Your task to perform on an android device: turn pop-ups off in chrome Image 0: 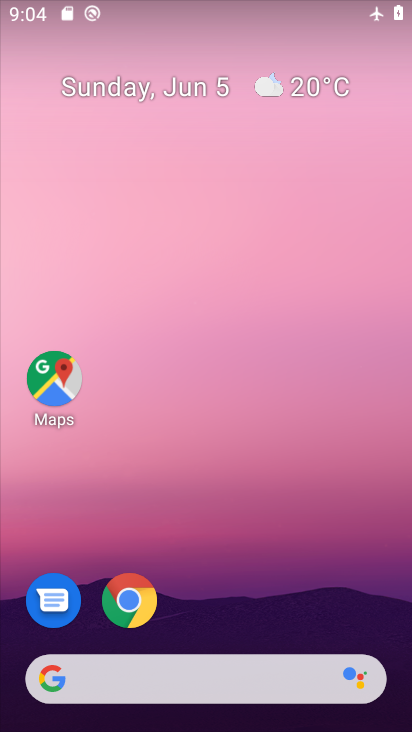
Step 0: click (132, 599)
Your task to perform on an android device: turn pop-ups off in chrome Image 1: 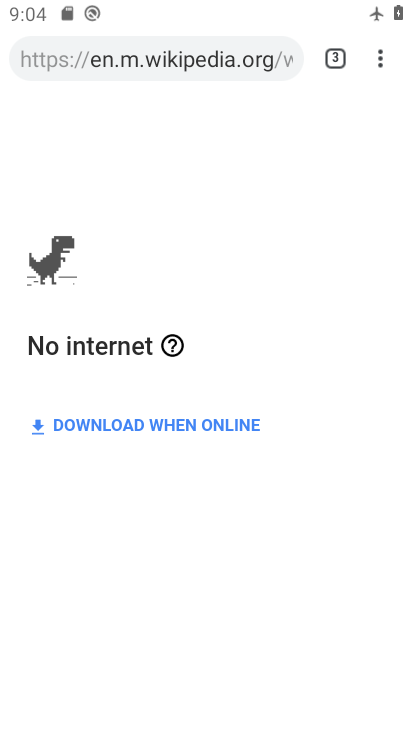
Step 1: click (380, 59)
Your task to perform on an android device: turn pop-ups off in chrome Image 2: 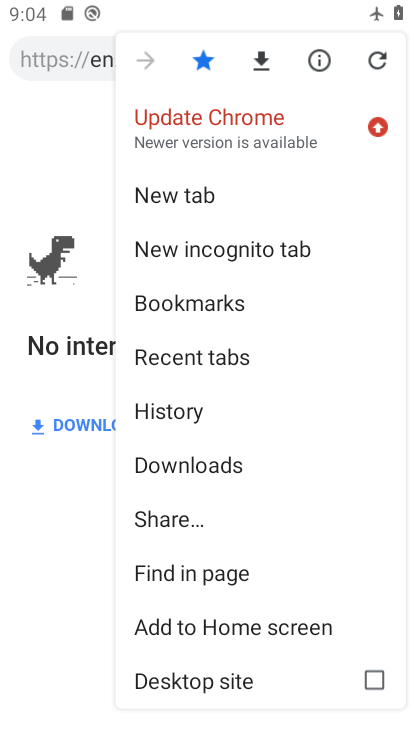
Step 2: drag from (276, 465) to (289, 155)
Your task to perform on an android device: turn pop-ups off in chrome Image 3: 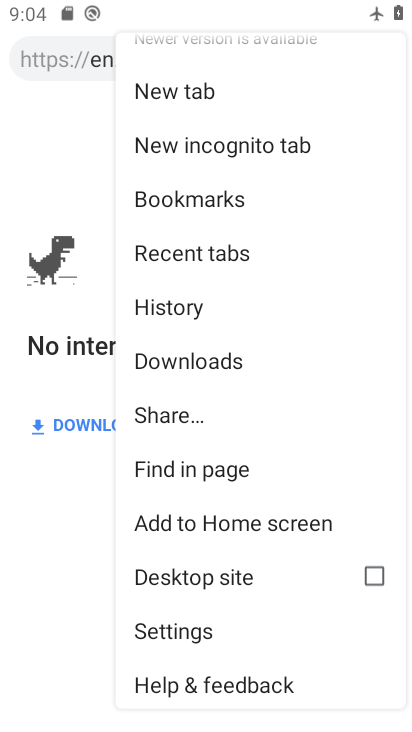
Step 3: click (232, 626)
Your task to perform on an android device: turn pop-ups off in chrome Image 4: 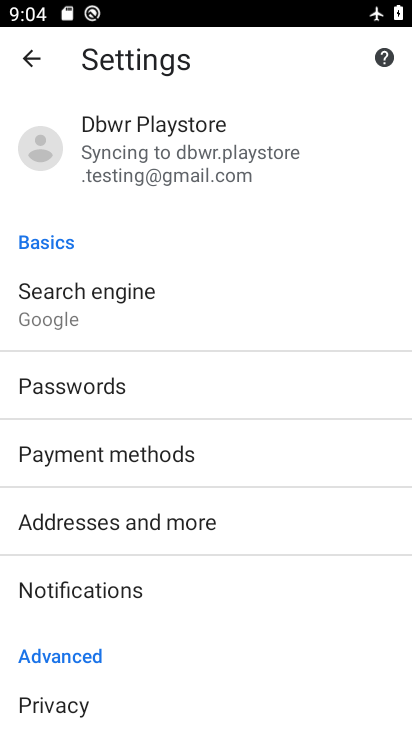
Step 4: drag from (285, 452) to (283, 132)
Your task to perform on an android device: turn pop-ups off in chrome Image 5: 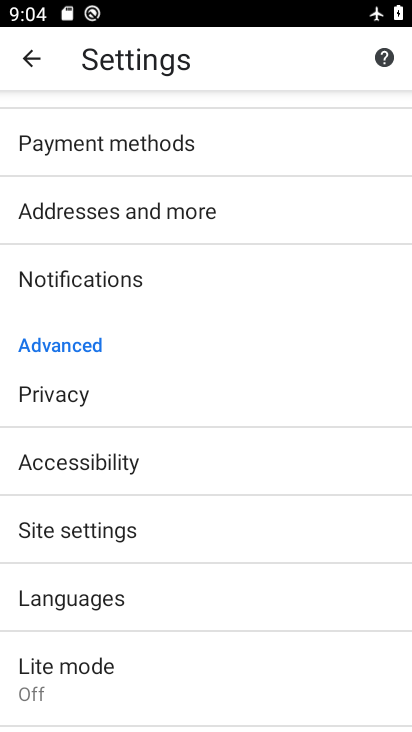
Step 5: click (195, 511)
Your task to perform on an android device: turn pop-ups off in chrome Image 6: 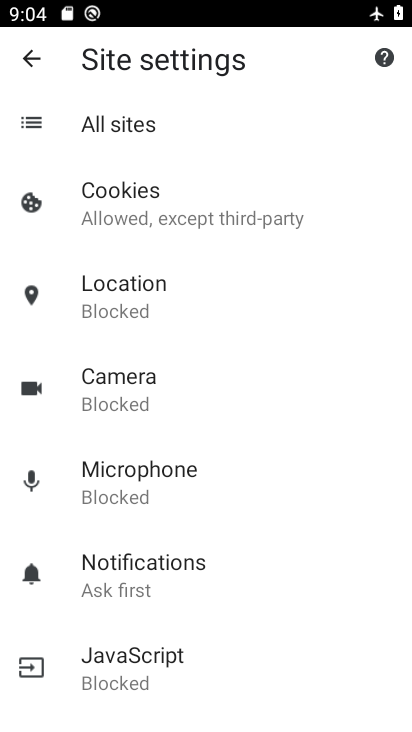
Step 6: drag from (229, 518) to (227, 277)
Your task to perform on an android device: turn pop-ups off in chrome Image 7: 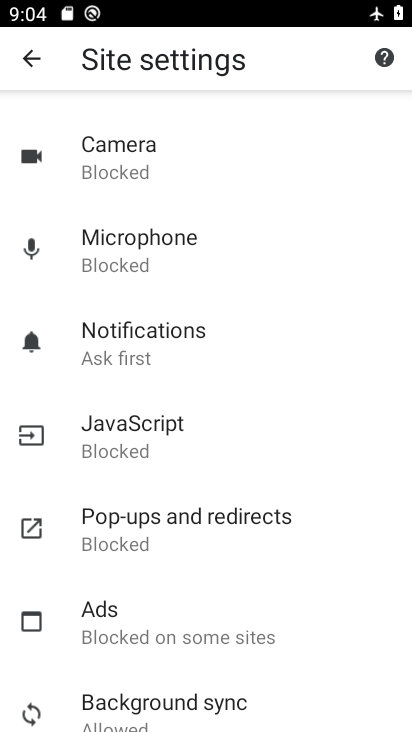
Step 7: click (216, 539)
Your task to perform on an android device: turn pop-ups off in chrome Image 8: 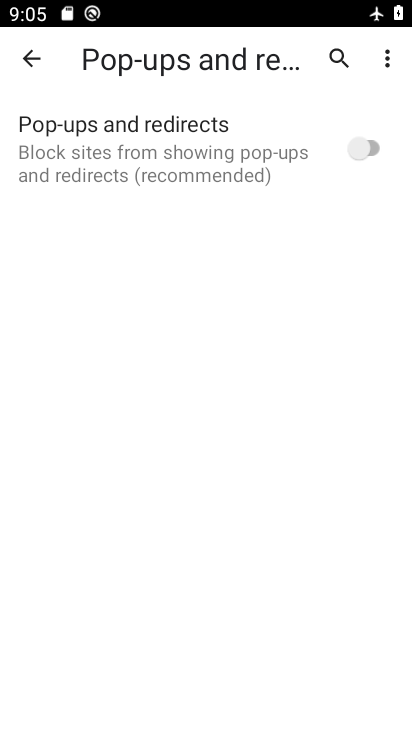
Step 8: task complete